Your task to perform on an android device: Search for Mexican restaurants on Maps Image 0: 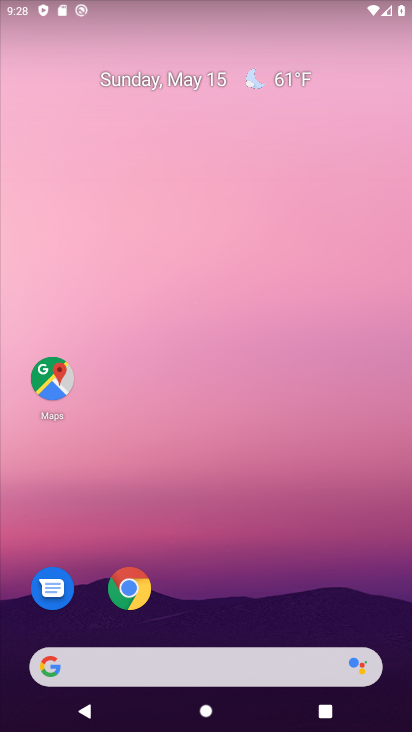
Step 0: drag from (240, 601) to (271, 112)
Your task to perform on an android device: Search for Mexican restaurants on Maps Image 1: 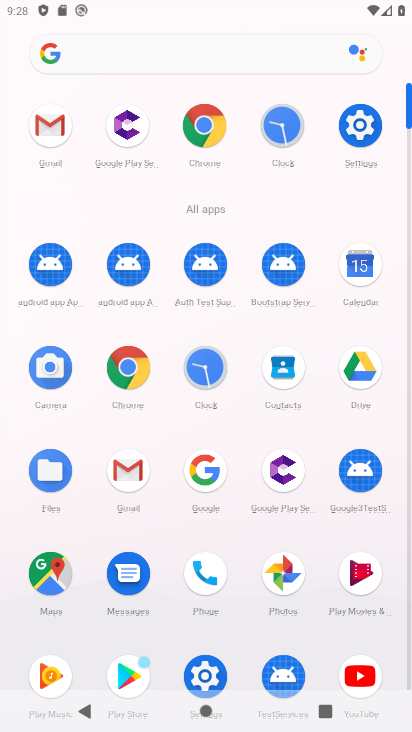
Step 1: click (45, 582)
Your task to perform on an android device: Search for Mexican restaurants on Maps Image 2: 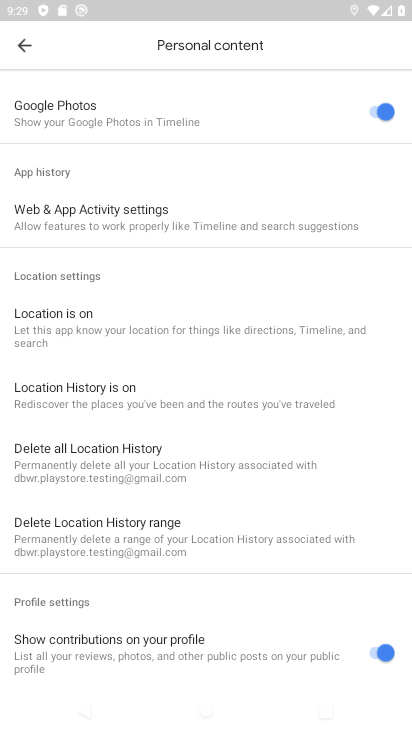
Step 2: click (19, 48)
Your task to perform on an android device: Search for Mexican restaurants on Maps Image 3: 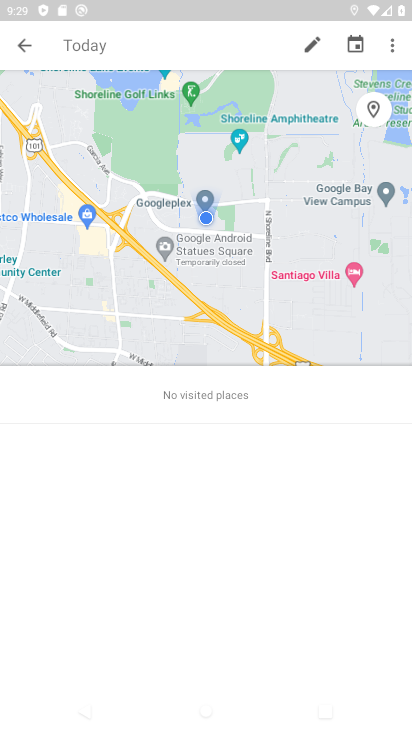
Step 3: click (20, 47)
Your task to perform on an android device: Search for Mexican restaurants on Maps Image 4: 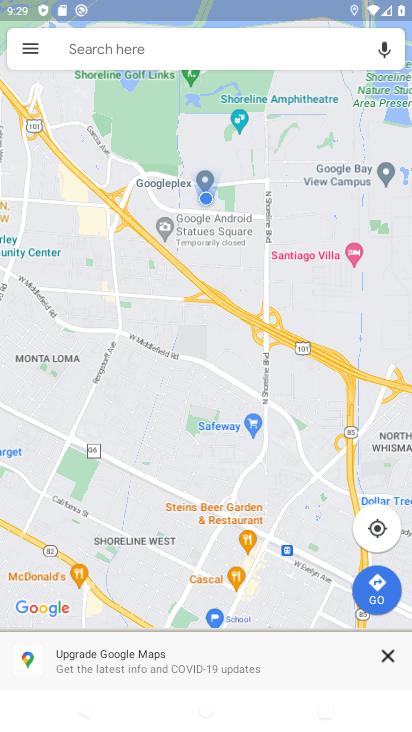
Step 4: click (204, 54)
Your task to perform on an android device: Search for Mexican restaurants on Maps Image 5: 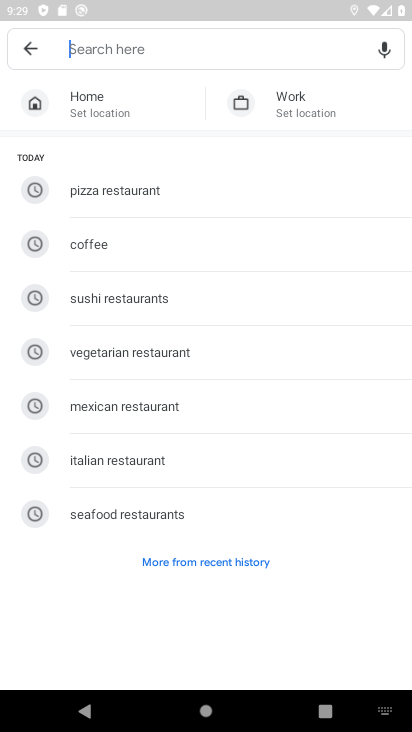
Step 5: type "mexican restaurants"
Your task to perform on an android device: Search for Mexican restaurants on Maps Image 6: 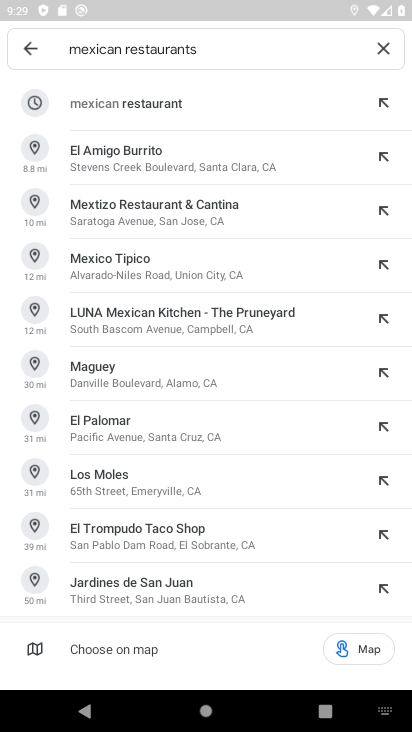
Step 6: click (118, 112)
Your task to perform on an android device: Search for Mexican restaurants on Maps Image 7: 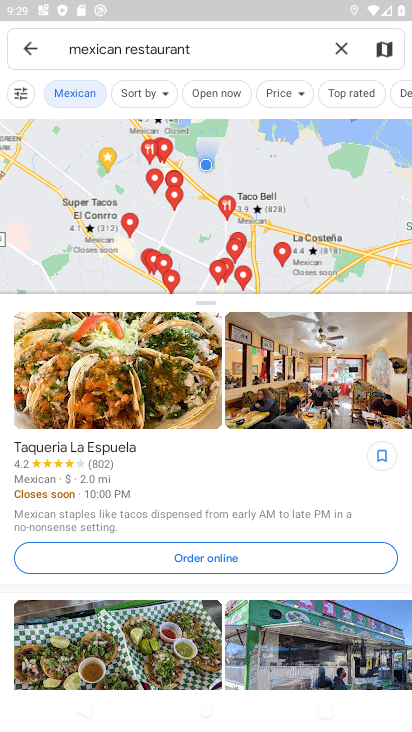
Step 7: task complete